Your task to perform on an android device: Open the stopwatch Image 0: 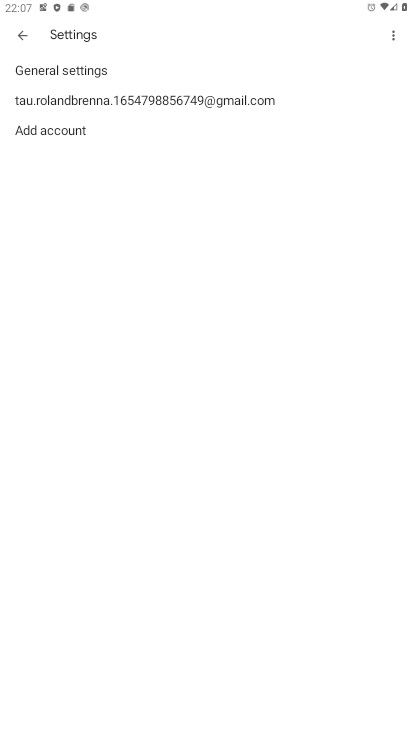
Step 0: drag from (234, 620) to (206, 377)
Your task to perform on an android device: Open the stopwatch Image 1: 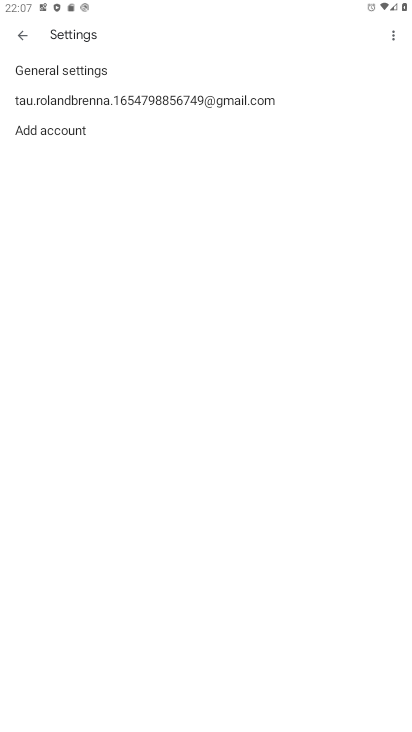
Step 1: press home button
Your task to perform on an android device: Open the stopwatch Image 2: 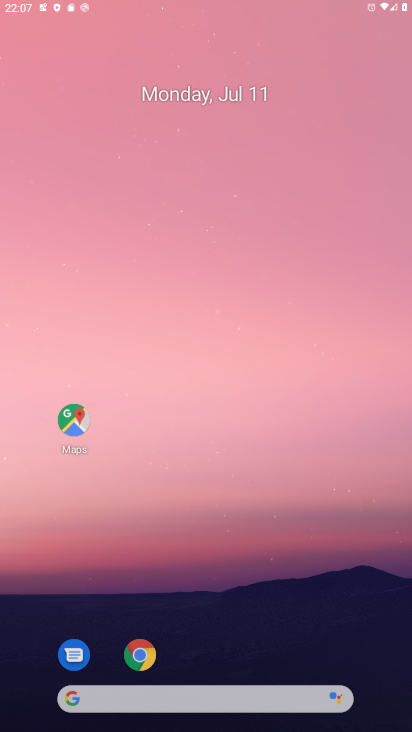
Step 2: click (188, 594)
Your task to perform on an android device: Open the stopwatch Image 3: 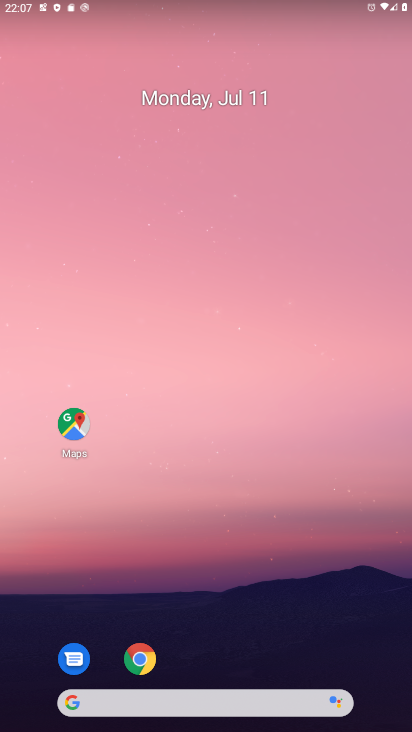
Step 3: drag from (211, 651) to (398, 178)
Your task to perform on an android device: Open the stopwatch Image 4: 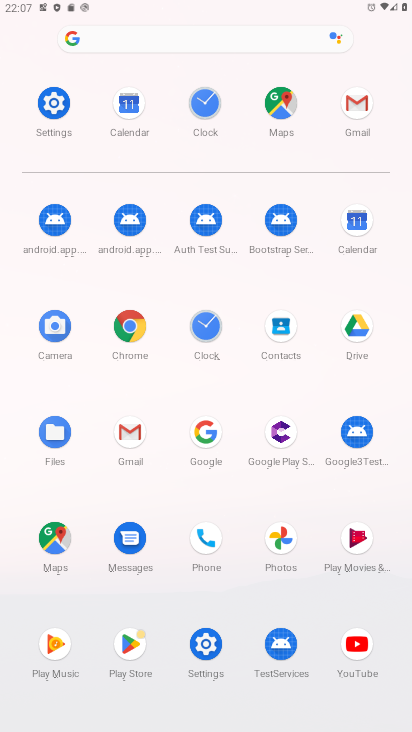
Step 4: click (210, 327)
Your task to perform on an android device: Open the stopwatch Image 5: 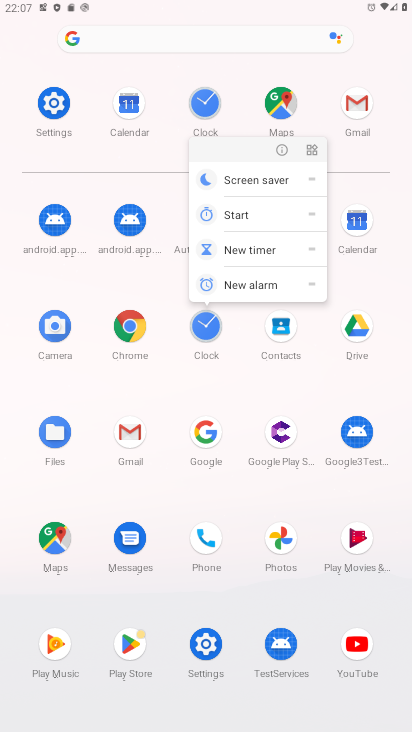
Step 5: click (278, 156)
Your task to perform on an android device: Open the stopwatch Image 6: 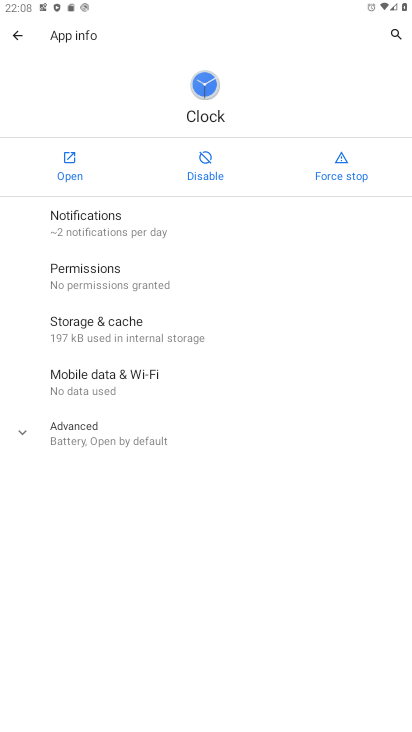
Step 6: click (62, 164)
Your task to perform on an android device: Open the stopwatch Image 7: 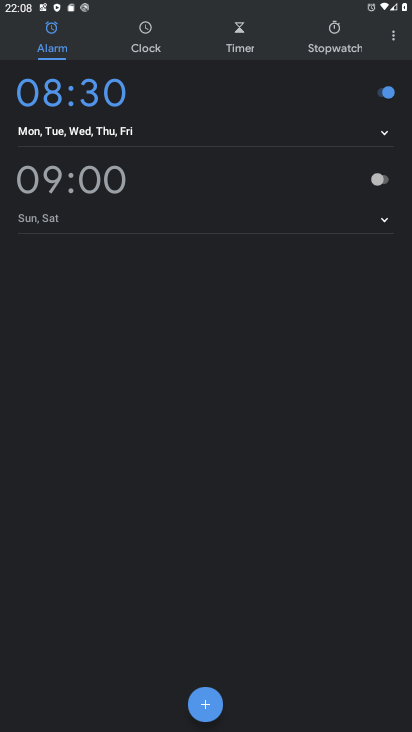
Step 7: click (240, 510)
Your task to perform on an android device: Open the stopwatch Image 8: 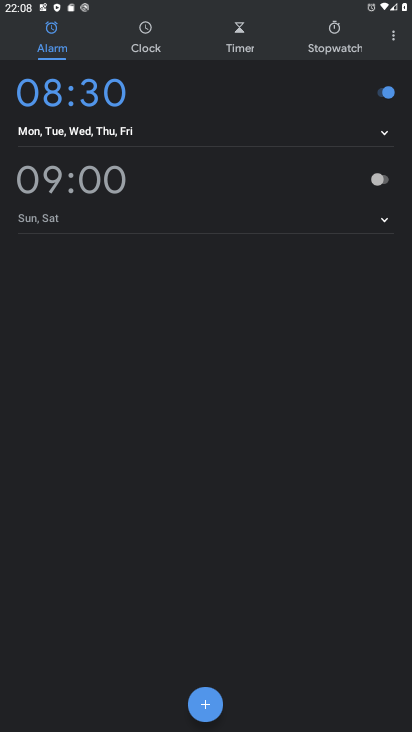
Step 8: click (322, 45)
Your task to perform on an android device: Open the stopwatch Image 9: 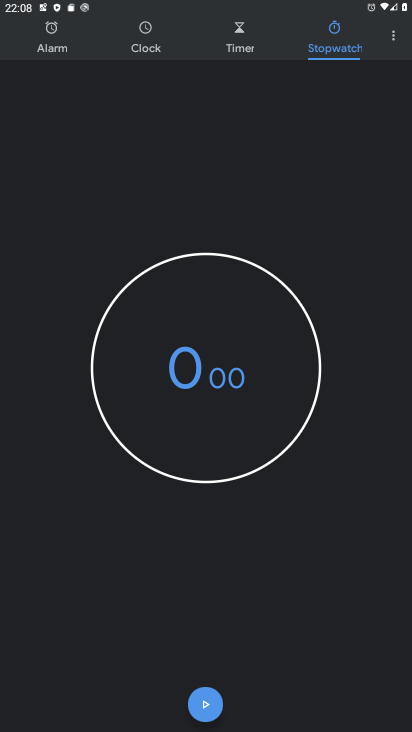
Step 9: drag from (324, 538) to (347, 354)
Your task to perform on an android device: Open the stopwatch Image 10: 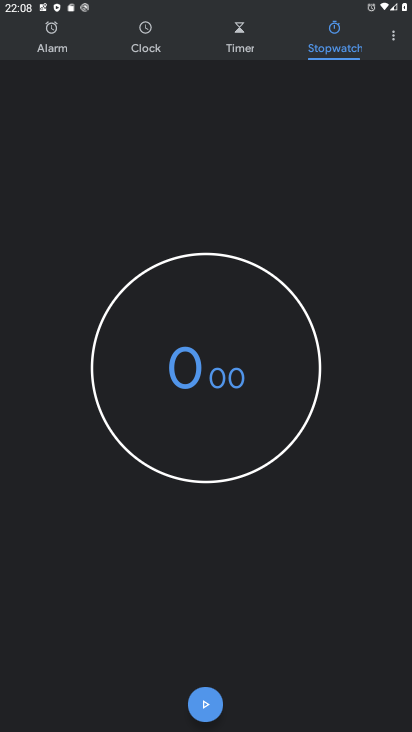
Step 10: click (201, 689)
Your task to perform on an android device: Open the stopwatch Image 11: 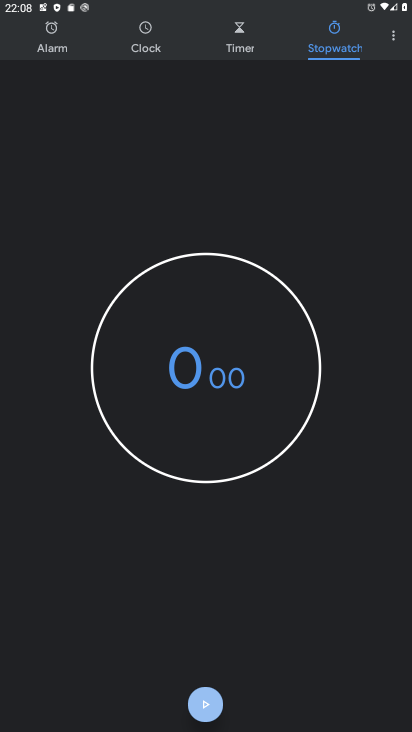
Step 11: click (201, 689)
Your task to perform on an android device: Open the stopwatch Image 12: 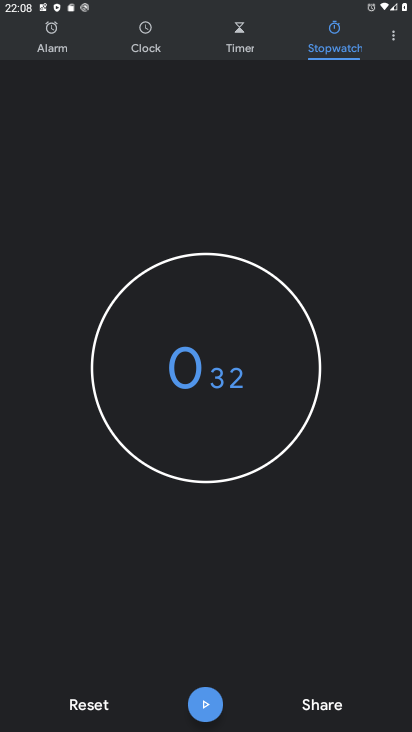
Step 12: click (229, 687)
Your task to perform on an android device: Open the stopwatch Image 13: 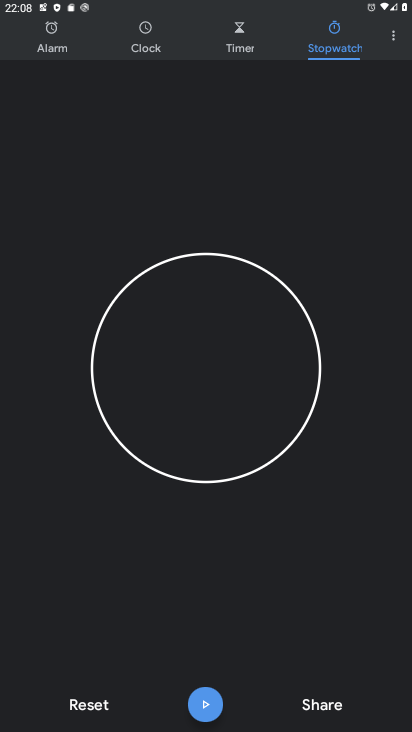
Step 13: click (231, 709)
Your task to perform on an android device: Open the stopwatch Image 14: 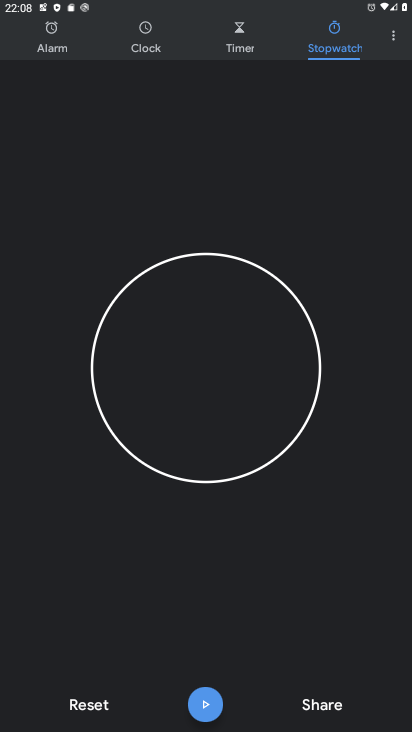
Step 14: click (206, 704)
Your task to perform on an android device: Open the stopwatch Image 15: 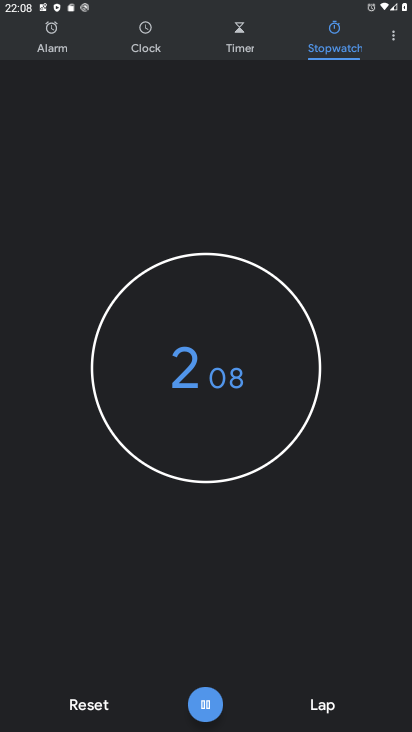
Step 15: drag from (218, 478) to (238, 427)
Your task to perform on an android device: Open the stopwatch Image 16: 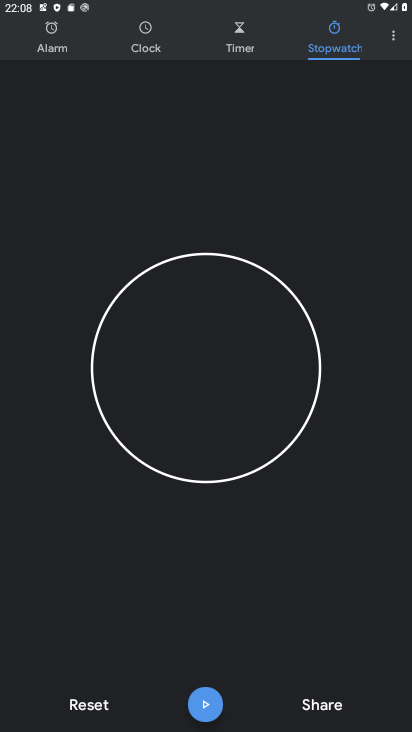
Step 16: click (203, 717)
Your task to perform on an android device: Open the stopwatch Image 17: 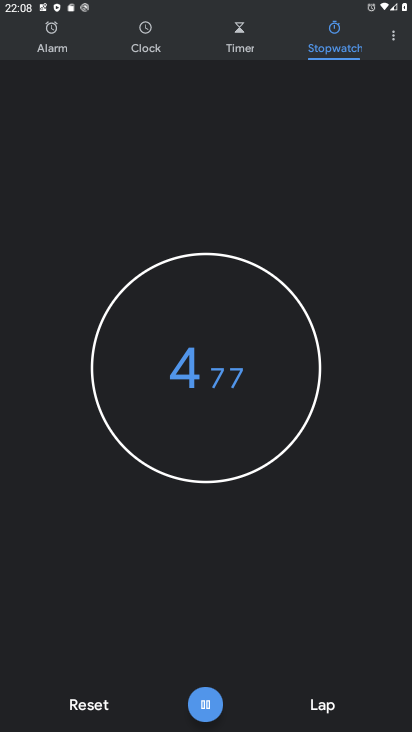
Step 17: task complete